Your task to perform on an android device: search for starred emails in the gmail app Image 0: 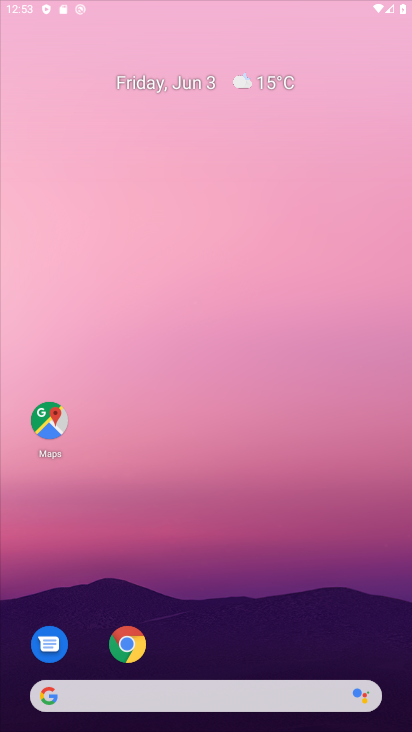
Step 0: press home button
Your task to perform on an android device: search for starred emails in the gmail app Image 1: 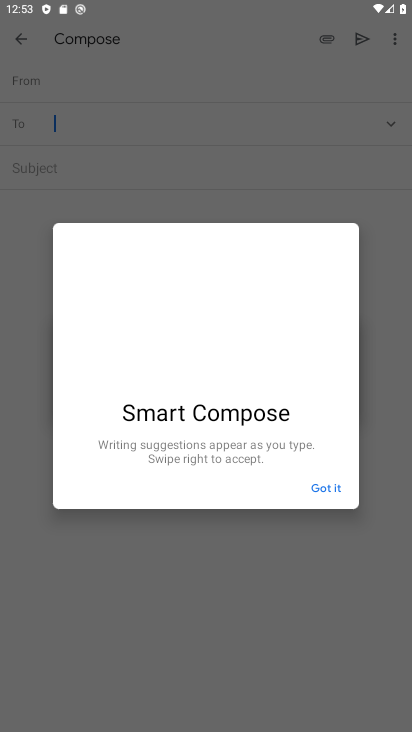
Step 1: drag from (234, 547) to (263, 12)
Your task to perform on an android device: search for starred emails in the gmail app Image 2: 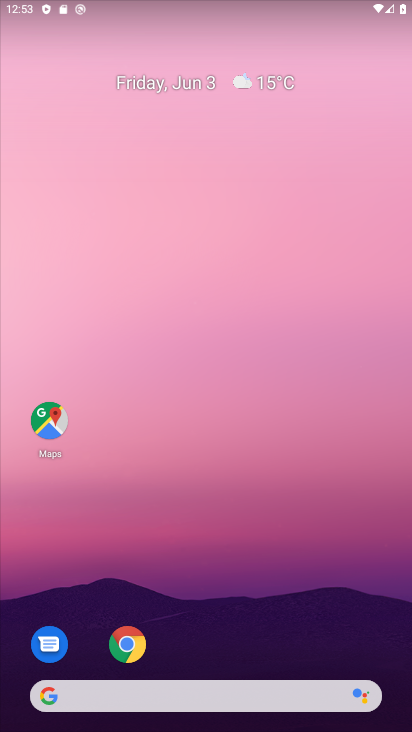
Step 2: press home button
Your task to perform on an android device: search for starred emails in the gmail app Image 3: 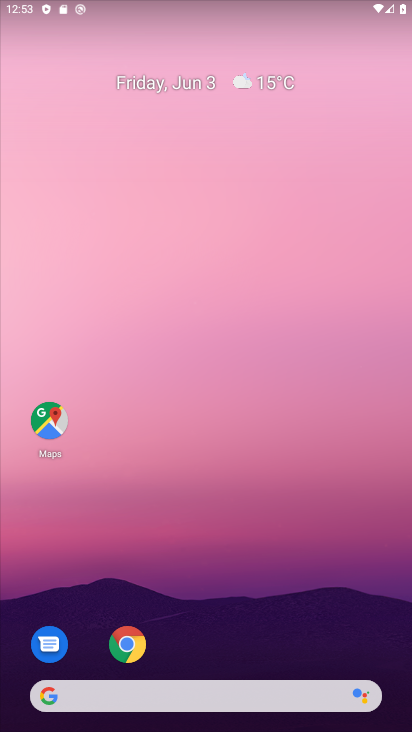
Step 3: drag from (263, 12) to (392, 353)
Your task to perform on an android device: search for starred emails in the gmail app Image 4: 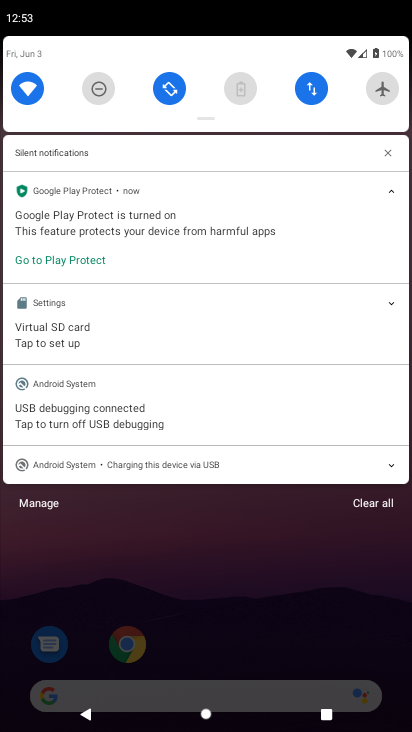
Step 4: drag from (238, 657) to (244, 229)
Your task to perform on an android device: search for starred emails in the gmail app Image 5: 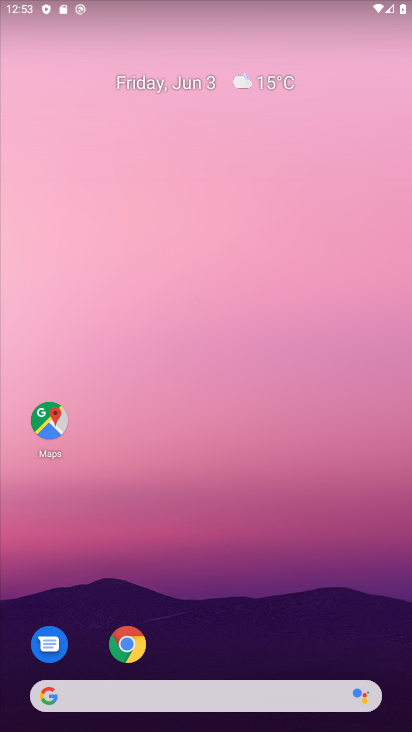
Step 5: drag from (236, 647) to (309, 60)
Your task to perform on an android device: search for starred emails in the gmail app Image 6: 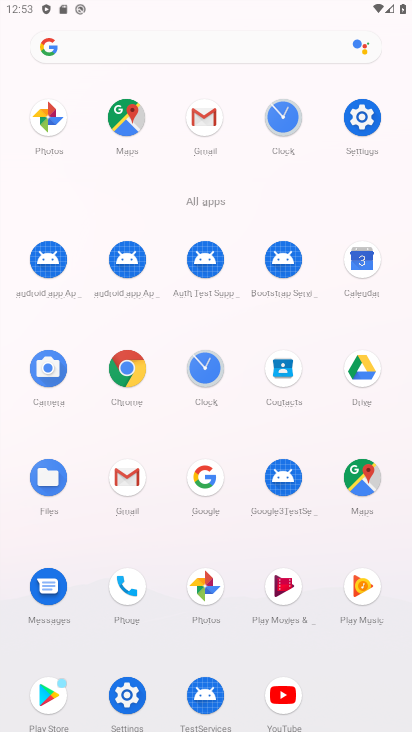
Step 6: click (136, 489)
Your task to perform on an android device: search for starred emails in the gmail app Image 7: 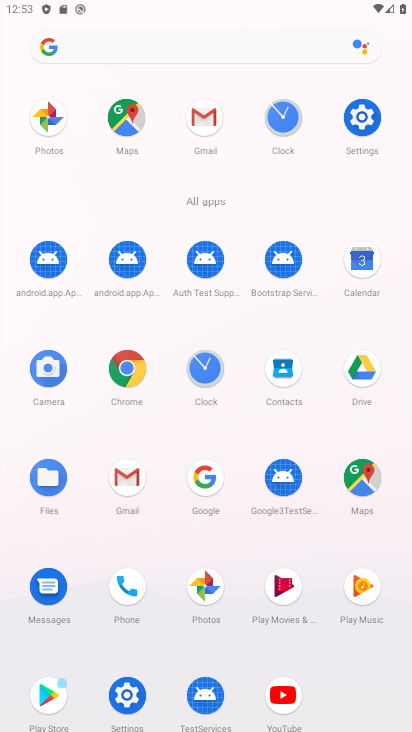
Step 7: click (135, 492)
Your task to perform on an android device: search for starred emails in the gmail app Image 8: 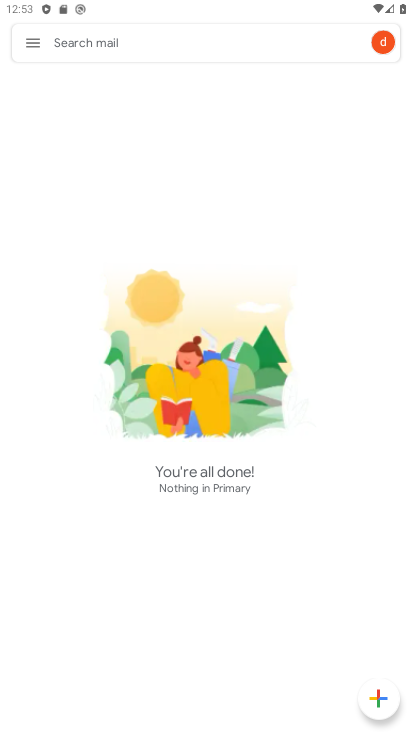
Step 8: click (29, 35)
Your task to perform on an android device: search for starred emails in the gmail app Image 9: 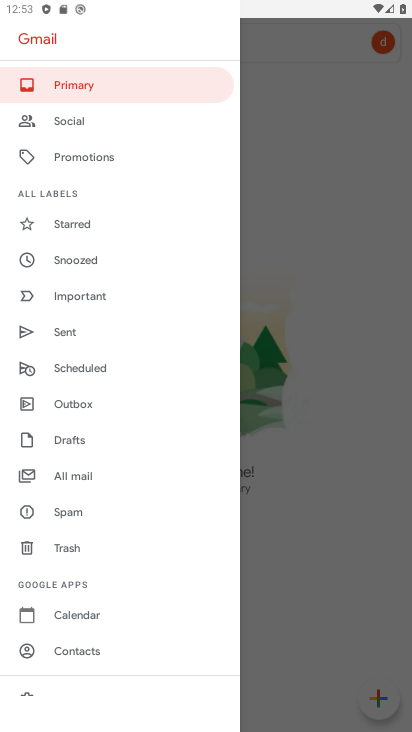
Step 9: click (87, 225)
Your task to perform on an android device: search for starred emails in the gmail app Image 10: 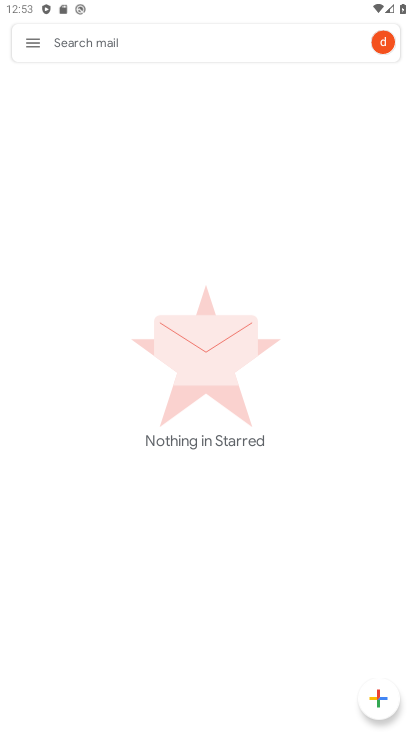
Step 10: task complete